Your task to perform on an android device: Show me recent news Image 0: 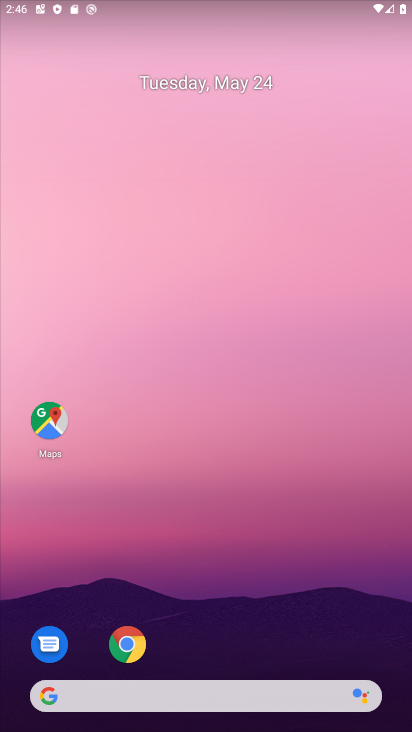
Step 0: drag from (241, 602) to (258, 272)
Your task to perform on an android device: Show me recent news Image 1: 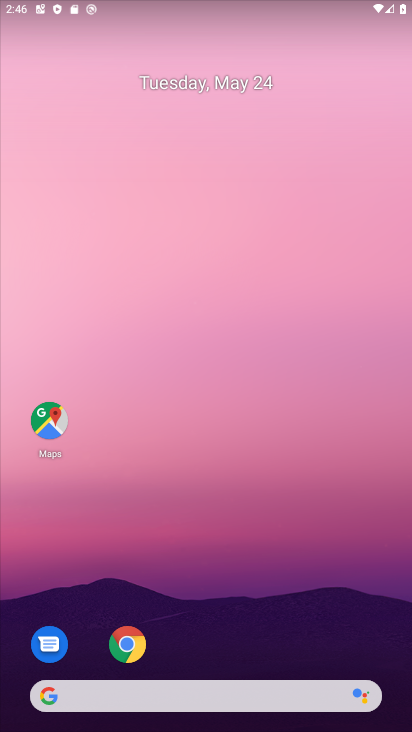
Step 1: drag from (296, 560) to (233, 43)
Your task to perform on an android device: Show me recent news Image 2: 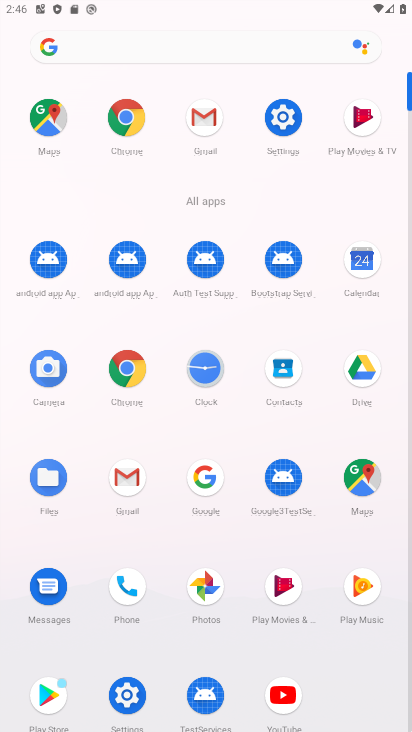
Step 2: click (113, 389)
Your task to perform on an android device: Show me recent news Image 3: 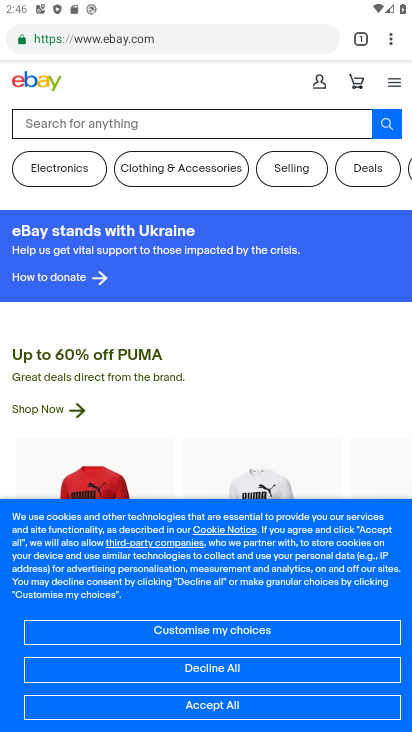
Step 3: click (214, 41)
Your task to perform on an android device: Show me recent news Image 4: 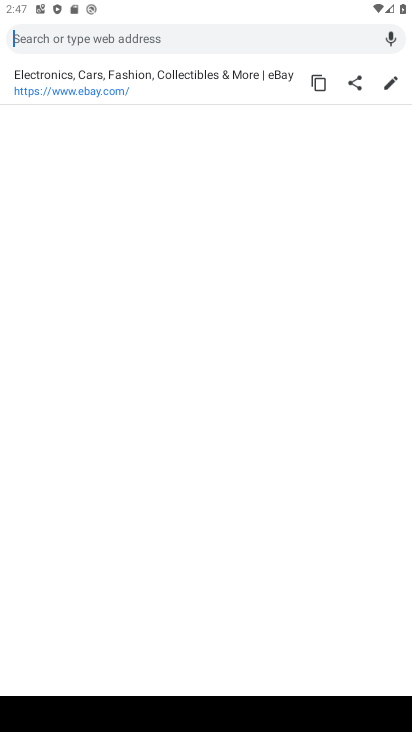
Step 4: type "recent news"
Your task to perform on an android device: Show me recent news Image 5: 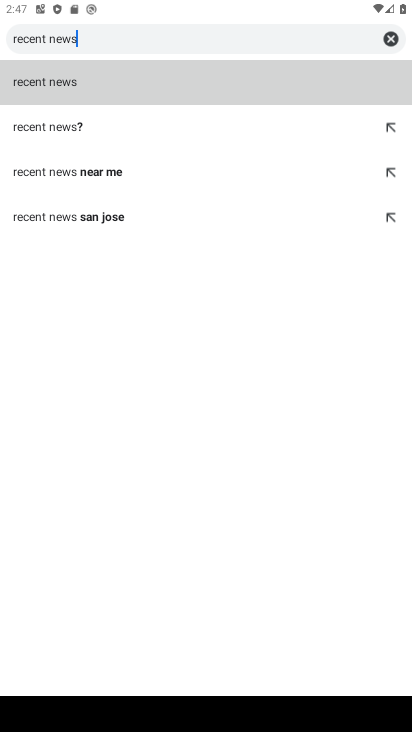
Step 5: click (92, 76)
Your task to perform on an android device: Show me recent news Image 6: 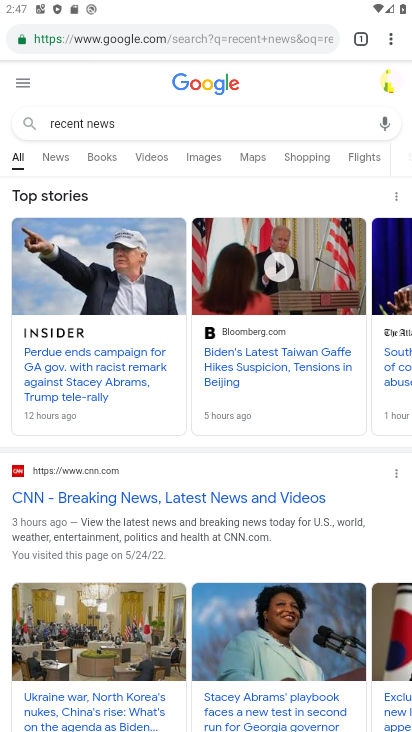
Step 6: task complete